Your task to perform on an android device: toggle notification dots Image 0: 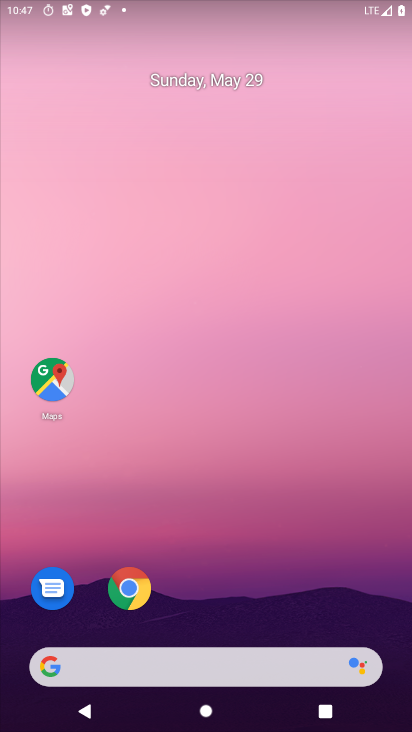
Step 0: drag from (265, 627) to (261, 142)
Your task to perform on an android device: toggle notification dots Image 1: 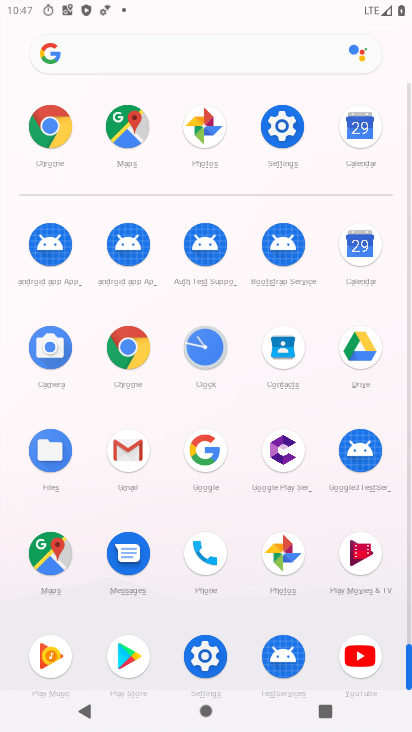
Step 1: click (201, 652)
Your task to perform on an android device: toggle notification dots Image 2: 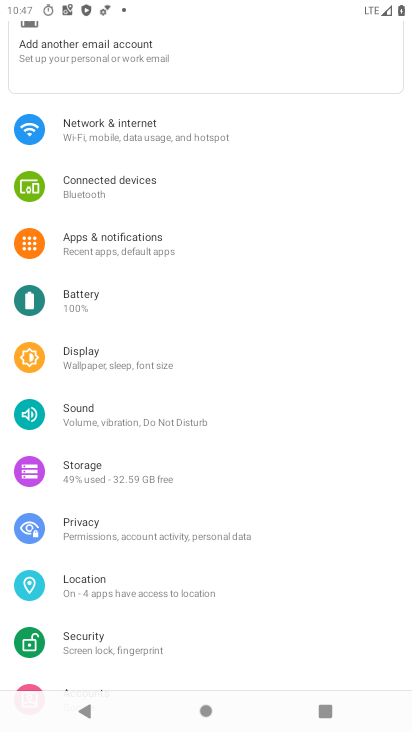
Step 2: click (137, 251)
Your task to perform on an android device: toggle notification dots Image 3: 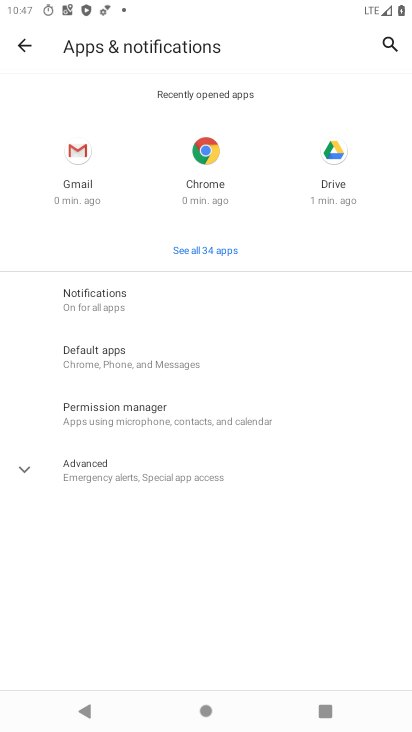
Step 3: click (150, 298)
Your task to perform on an android device: toggle notification dots Image 4: 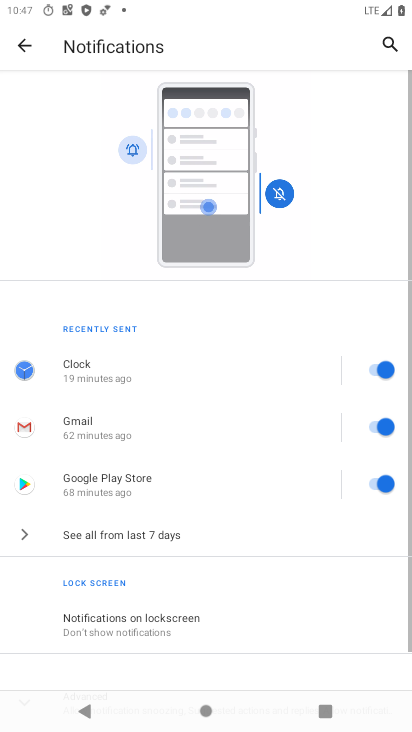
Step 4: drag from (154, 489) to (175, 118)
Your task to perform on an android device: toggle notification dots Image 5: 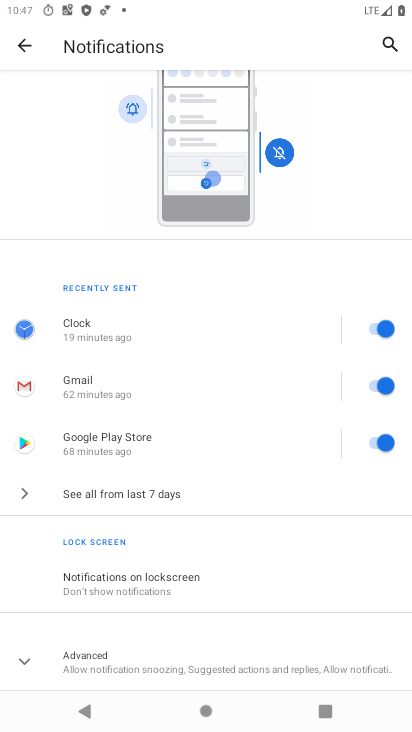
Step 5: click (160, 657)
Your task to perform on an android device: toggle notification dots Image 6: 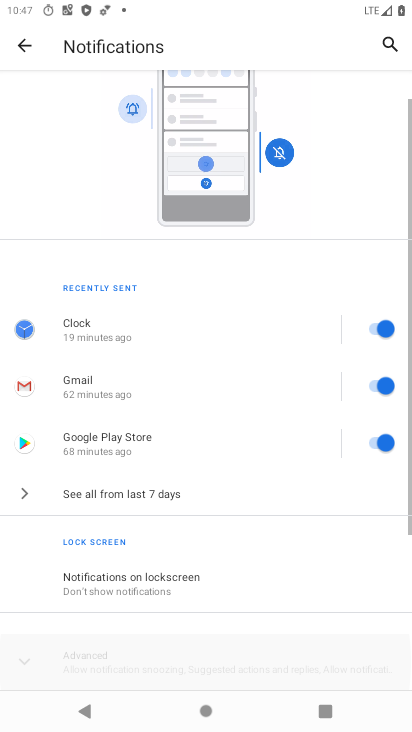
Step 6: drag from (155, 616) to (203, 219)
Your task to perform on an android device: toggle notification dots Image 7: 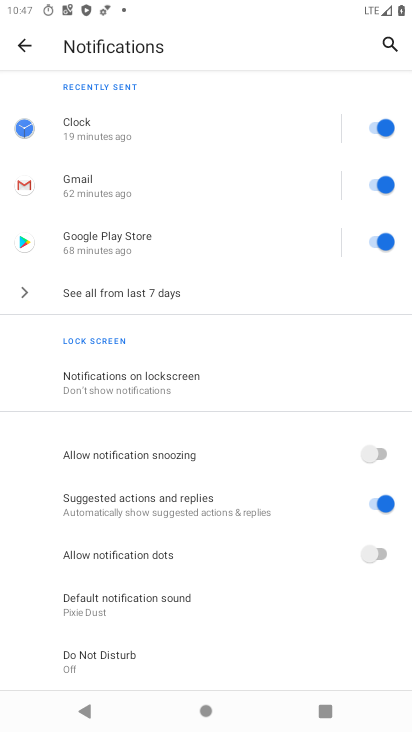
Step 7: click (372, 560)
Your task to perform on an android device: toggle notification dots Image 8: 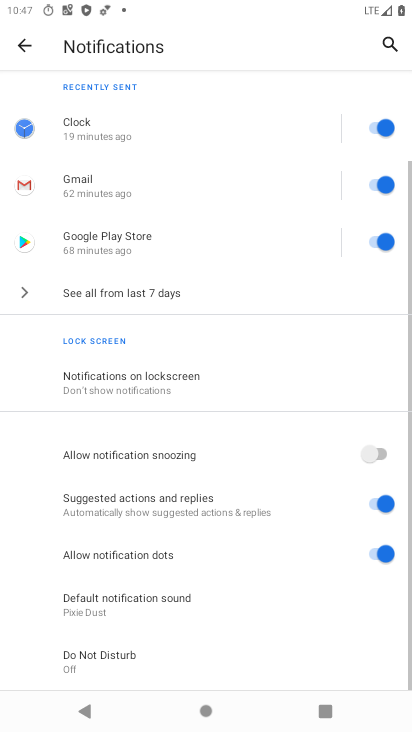
Step 8: task complete